Your task to perform on an android device: Open notification settings Image 0: 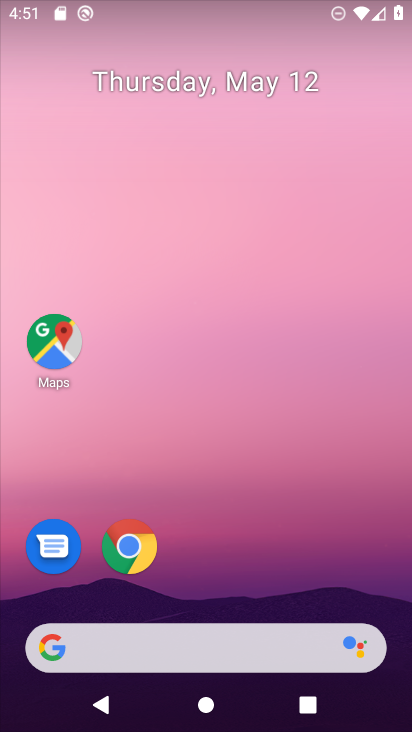
Step 0: drag from (302, 536) to (317, 140)
Your task to perform on an android device: Open notification settings Image 1: 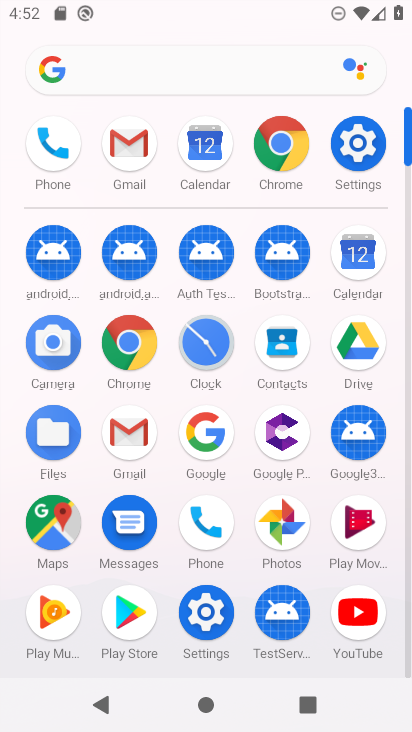
Step 1: click (355, 143)
Your task to perform on an android device: Open notification settings Image 2: 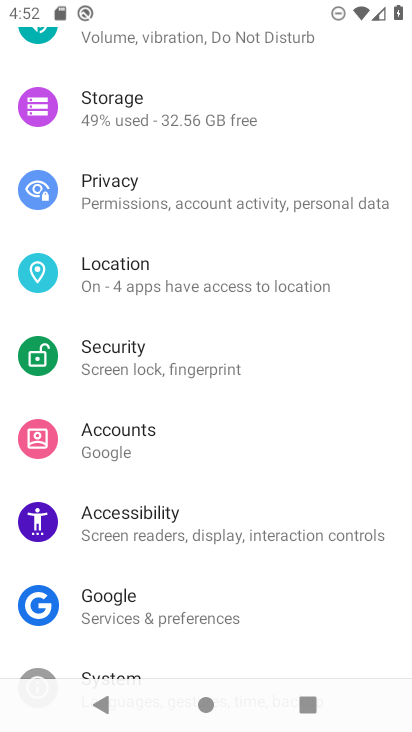
Step 2: drag from (212, 168) to (211, 324)
Your task to perform on an android device: Open notification settings Image 3: 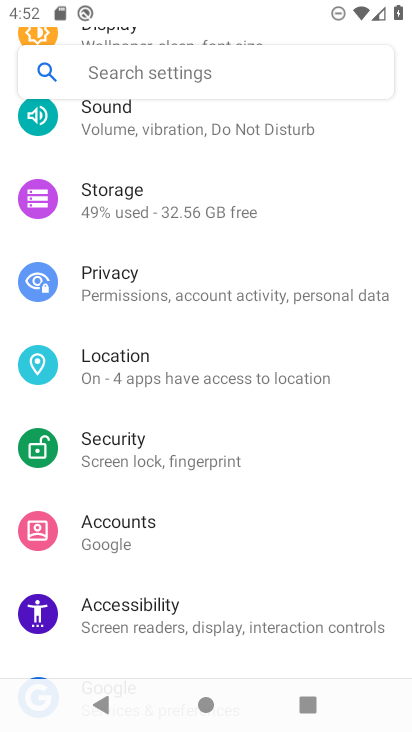
Step 3: drag from (250, 191) to (265, 567)
Your task to perform on an android device: Open notification settings Image 4: 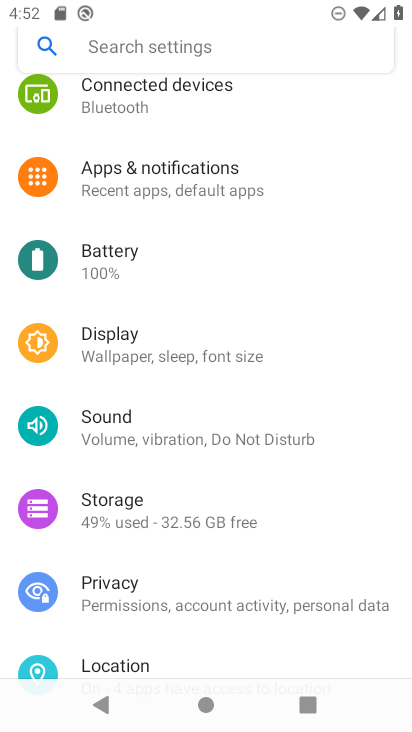
Step 4: click (178, 194)
Your task to perform on an android device: Open notification settings Image 5: 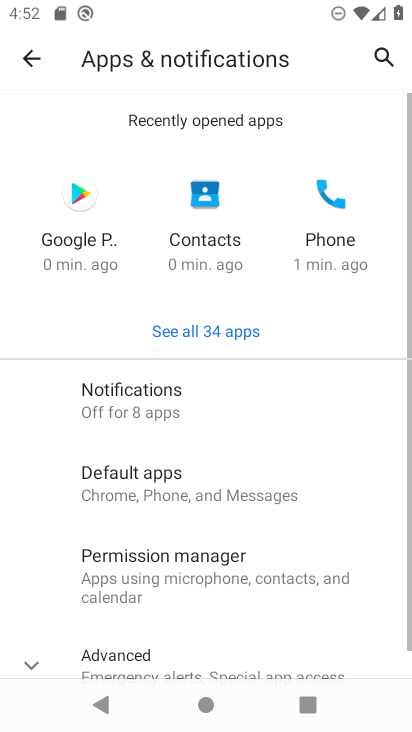
Step 5: click (166, 401)
Your task to perform on an android device: Open notification settings Image 6: 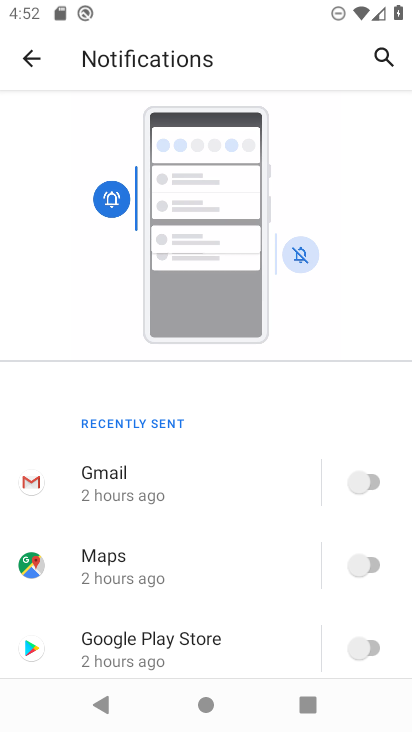
Step 6: task complete